Your task to perform on an android device: Turn off the flashlight Image 0: 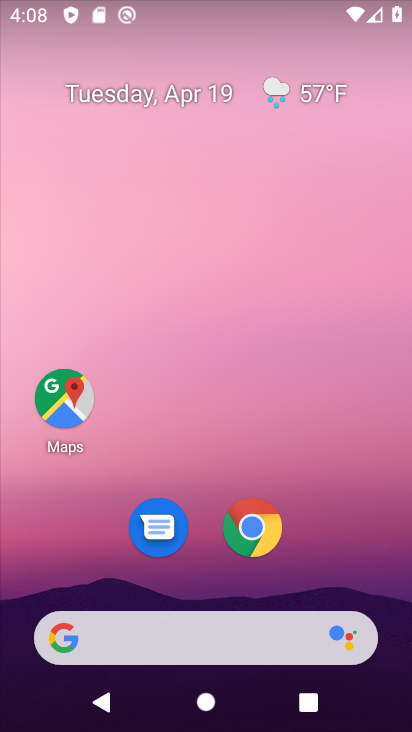
Step 0: drag from (236, 8) to (299, 684)
Your task to perform on an android device: Turn off the flashlight Image 1: 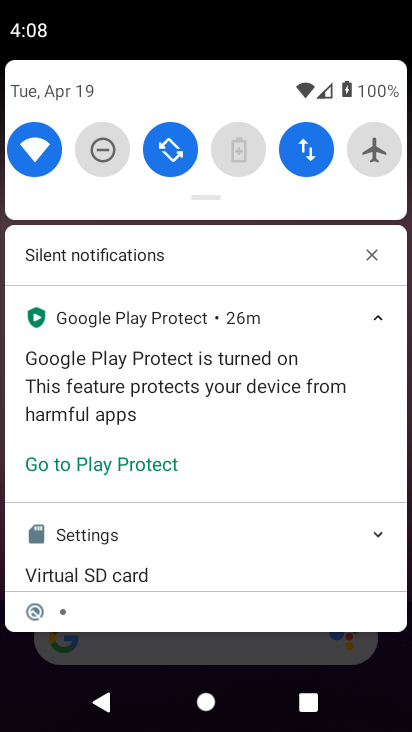
Step 1: drag from (200, 208) to (231, 496)
Your task to perform on an android device: Turn off the flashlight Image 2: 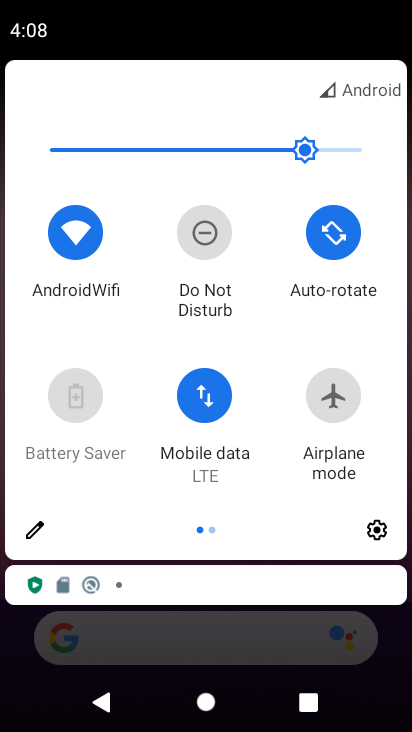
Step 2: click (26, 526)
Your task to perform on an android device: Turn off the flashlight Image 3: 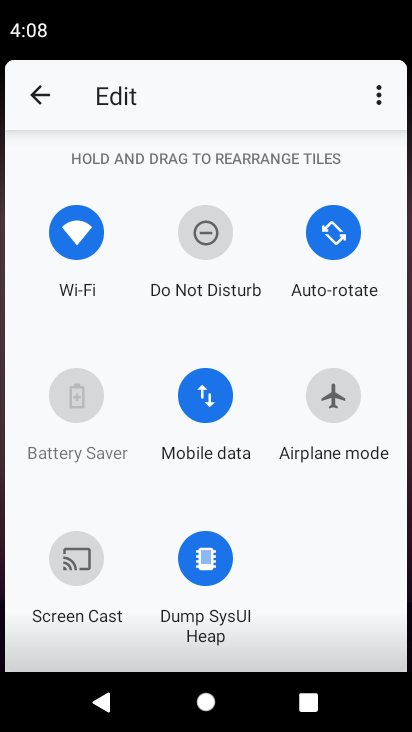
Step 3: task complete